Your task to perform on an android device: move an email to a new category in the gmail app Image 0: 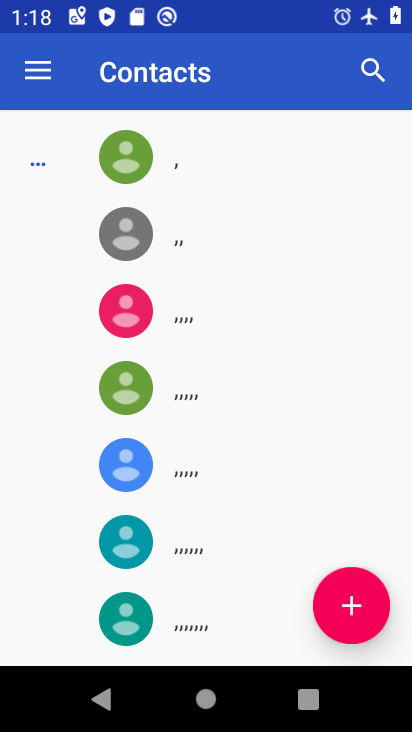
Step 0: press home button
Your task to perform on an android device: move an email to a new category in the gmail app Image 1: 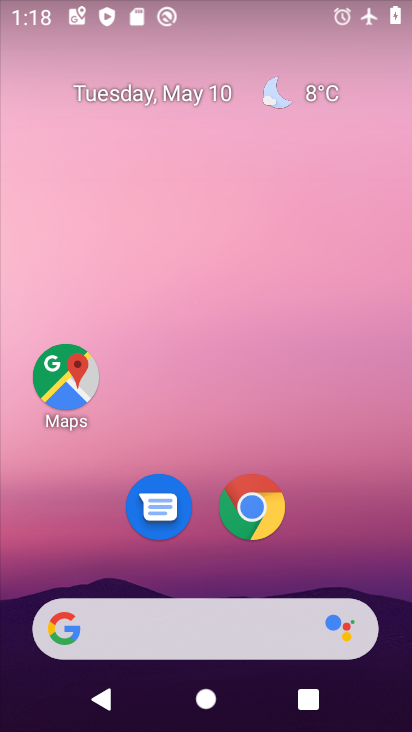
Step 1: drag from (232, 723) to (236, 194)
Your task to perform on an android device: move an email to a new category in the gmail app Image 2: 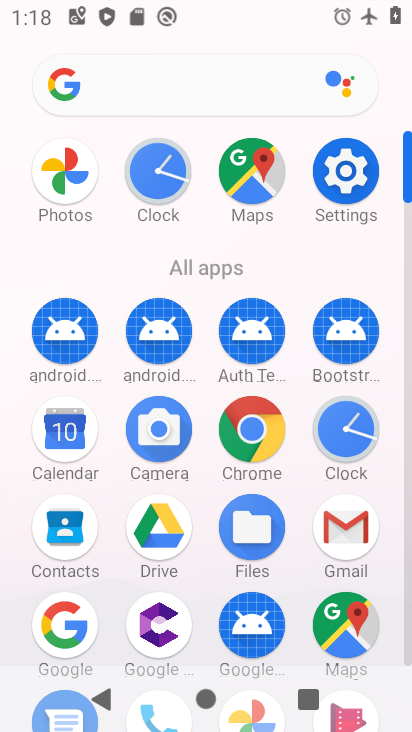
Step 2: click (351, 524)
Your task to perform on an android device: move an email to a new category in the gmail app Image 3: 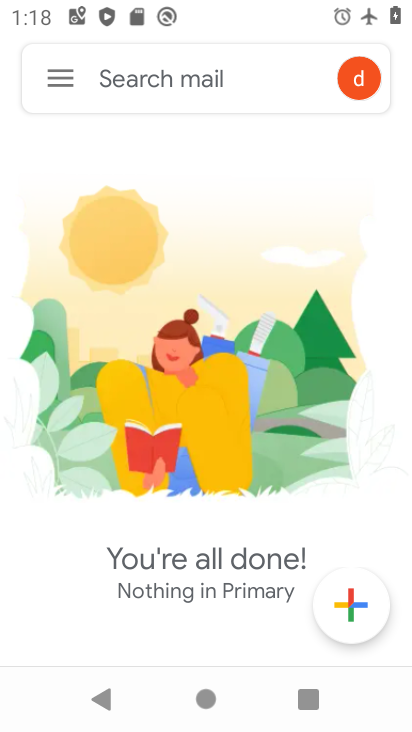
Step 3: task complete